Your task to perform on an android device: Search for pizza restaurants on Maps Image 0: 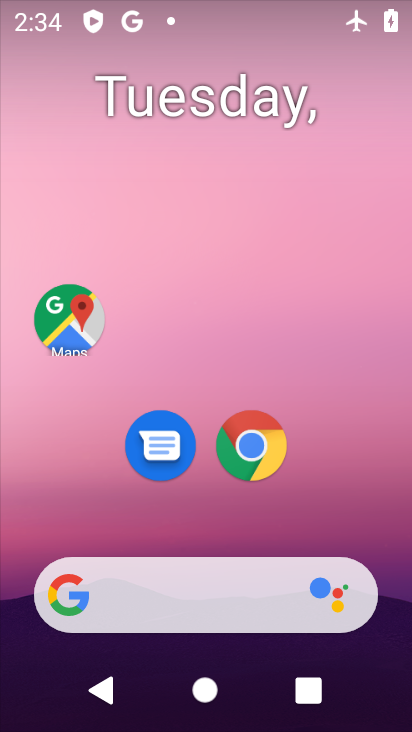
Step 0: click (63, 322)
Your task to perform on an android device: Search for pizza restaurants on Maps Image 1: 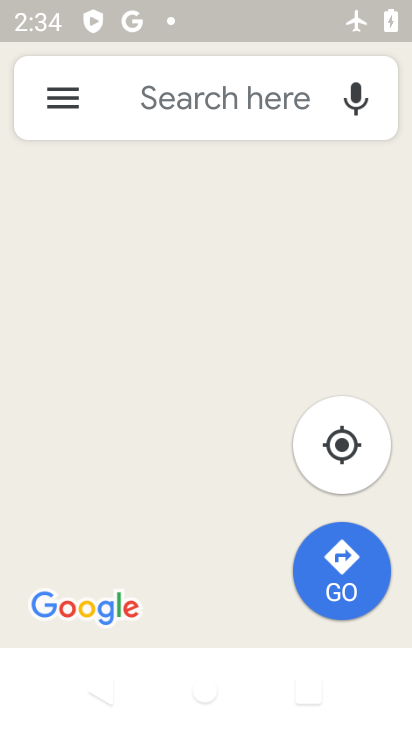
Step 1: click (237, 105)
Your task to perform on an android device: Search for pizza restaurants on Maps Image 2: 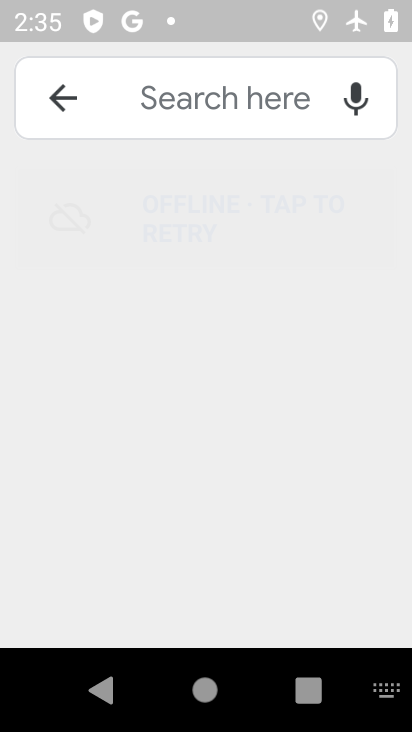
Step 2: type "pizza "
Your task to perform on an android device: Search for pizza restaurants on Maps Image 3: 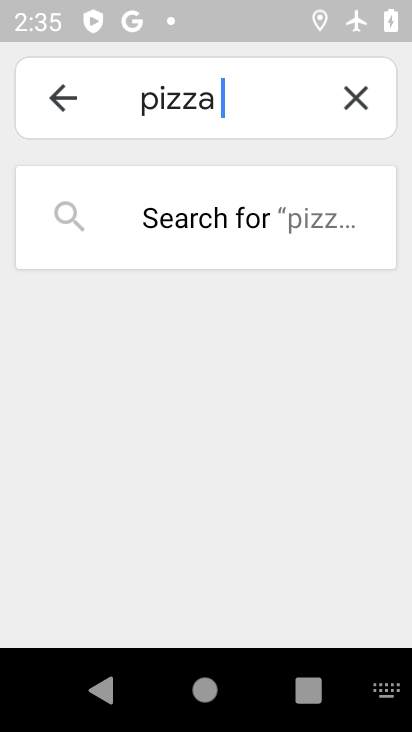
Step 3: task complete